Your task to perform on an android device: Add "logitech g910" to the cart on ebay Image 0: 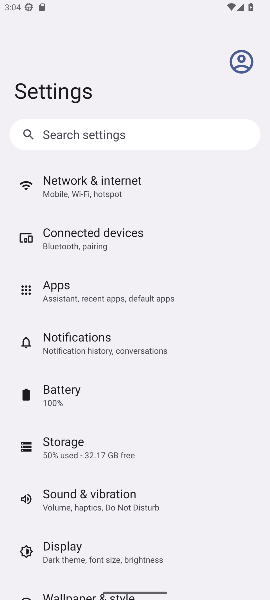
Step 0: press home button
Your task to perform on an android device: Add "logitech g910" to the cart on ebay Image 1: 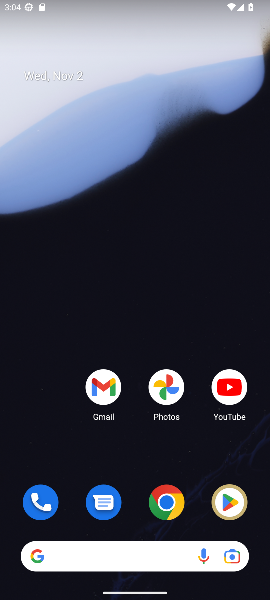
Step 1: click (166, 503)
Your task to perform on an android device: Add "logitech g910" to the cart on ebay Image 2: 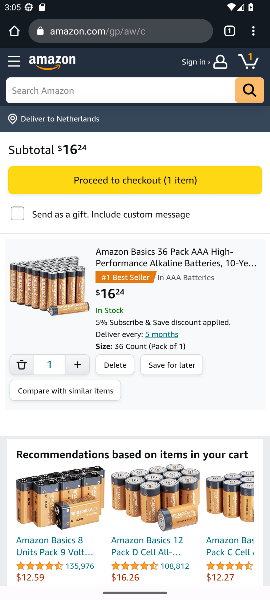
Step 2: click (90, 91)
Your task to perform on an android device: Add "logitech g910" to the cart on ebay Image 3: 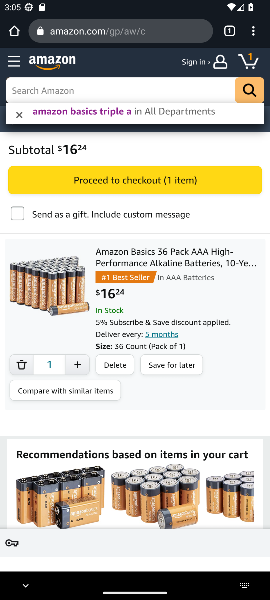
Step 3: type "logitech g910"
Your task to perform on an android device: Add "logitech g910" to the cart on ebay Image 4: 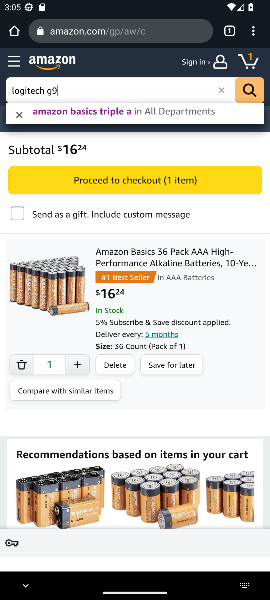
Step 4: type ""
Your task to perform on an android device: Add "logitech g910" to the cart on ebay Image 5: 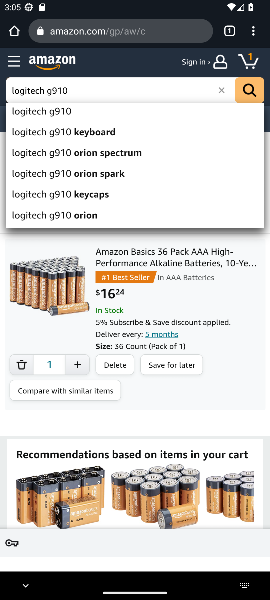
Step 5: click (34, 114)
Your task to perform on an android device: Add "logitech g910" to the cart on ebay Image 6: 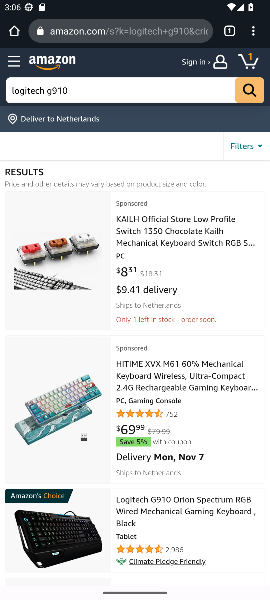
Step 6: click (160, 233)
Your task to perform on an android device: Add "logitech g910" to the cart on ebay Image 7: 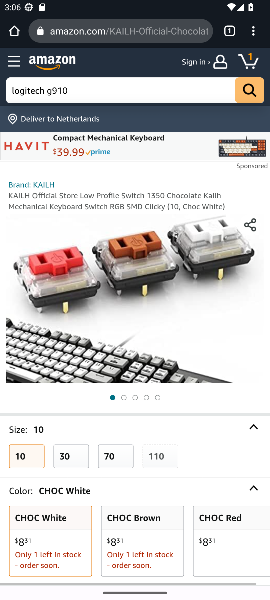
Step 7: task complete